Your task to perform on an android device: Go to location settings Image 0: 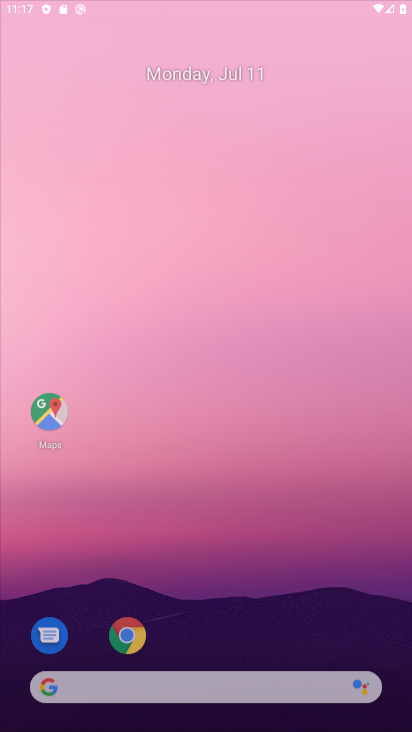
Step 0: drag from (345, 281) to (332, 157)
Your task to perform on an android device: Go to location settings Image 1: 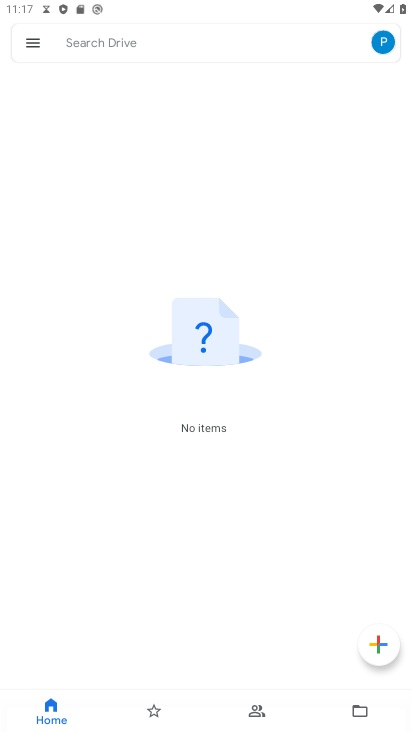
Step 1: press home button
Your task to perform on an android device: Go to location settings Image 2: 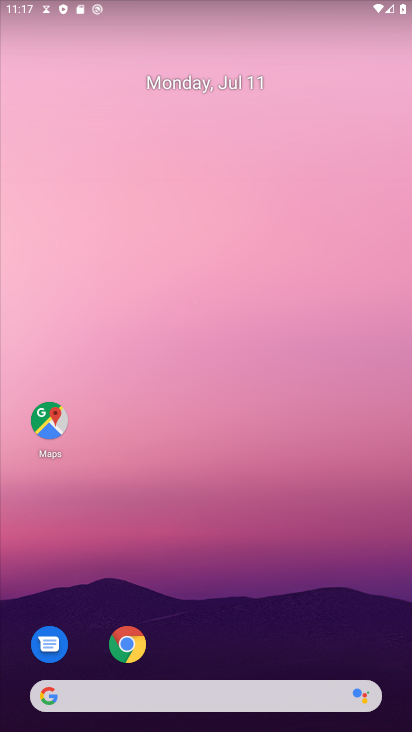
Step 2: drag from (409, 692) to (368, 68)
Your task to perform on an android device: Go to location settings Image 3: 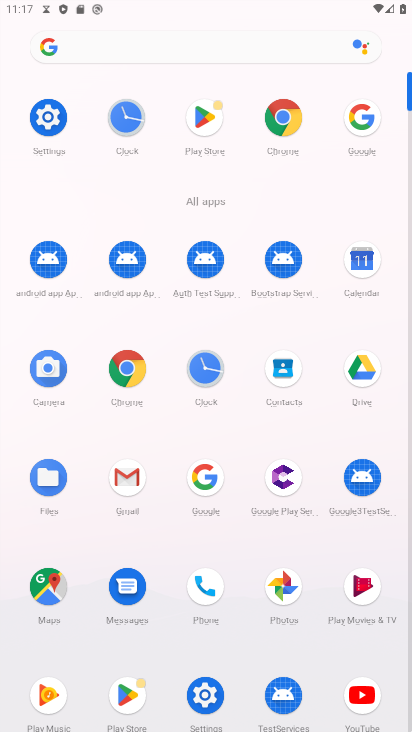
Step 3: click (52, 114)
Your task to perform on an android device: Go to location settings Image 4: 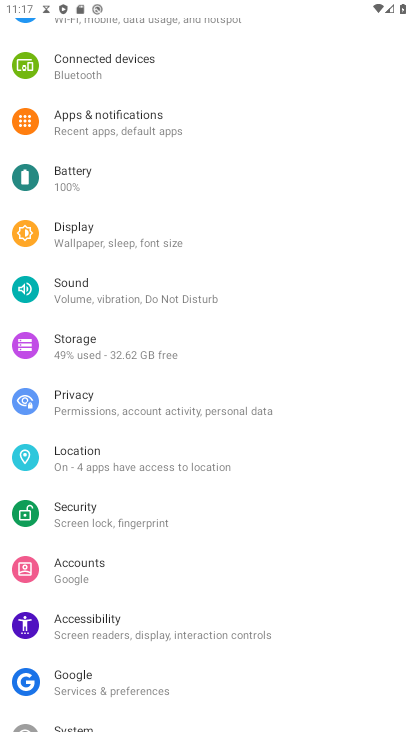
Step 4: click (98, 458)
Your task to perform on an android device: Go to location settings Image 5: 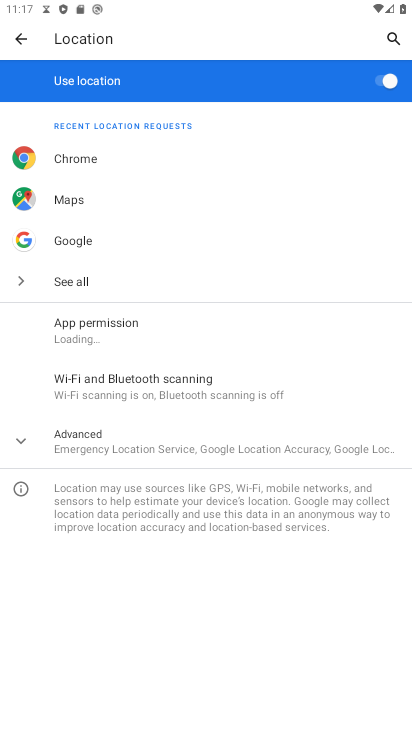
Step 5: click (16, 437)
Your task to perform on an android device: Go to location settings Image 6: 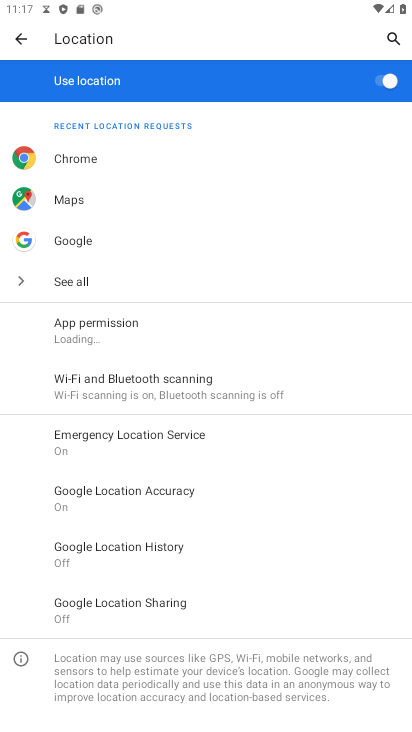
Step 6: task complete